Your task to perform on an android device: turn off improve location accuracy Image 0: 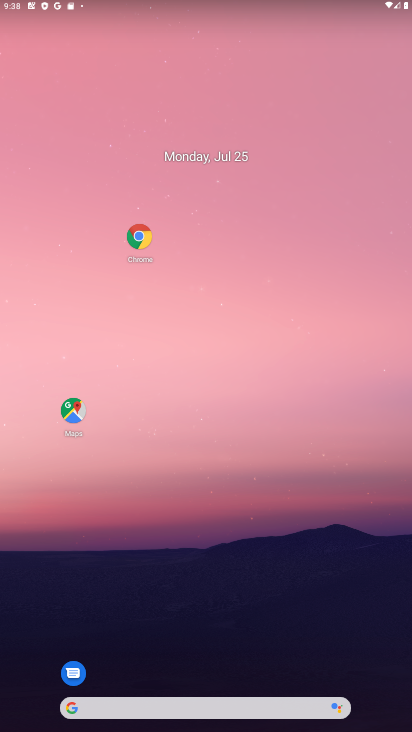
Step 0: task complete